Your task to perform on an android device: Open Google Image 0: 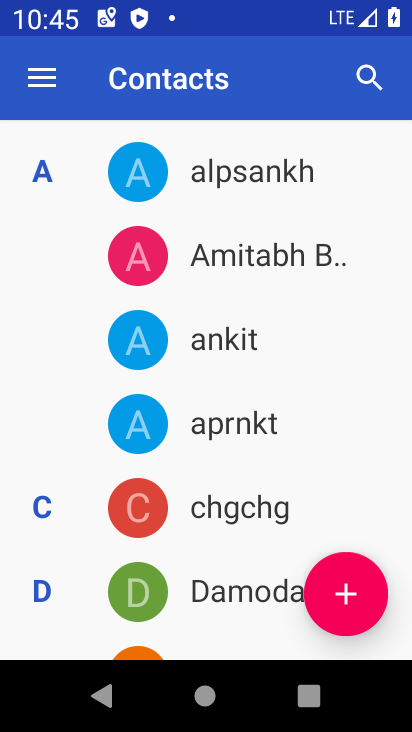
Step 0: press home button
Your task to perform on an android device: Open Google Image 1: 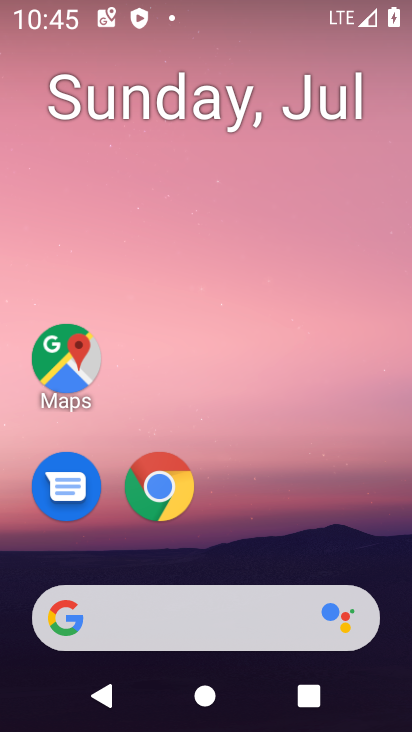
Step 1: drag from (361, 549) to (358, 100)
Your task to perform on an android device: Open Google Image 2: 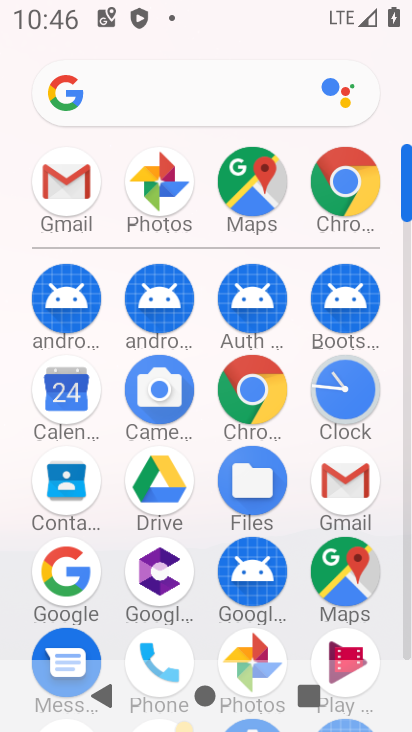
Step 2: click (67, 579)
Your task to perform on an android device: Open Google Image 3: 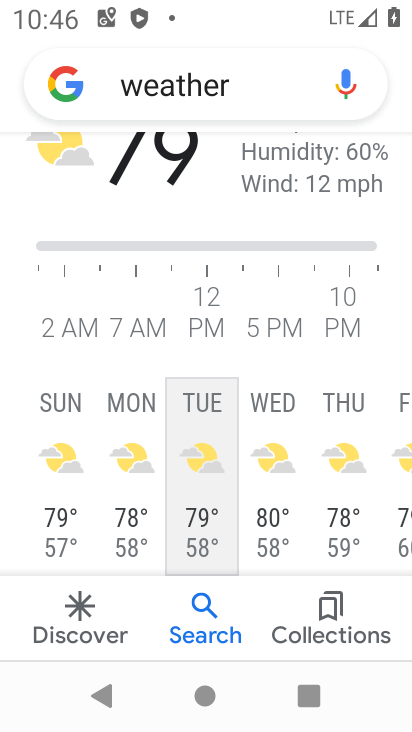
Step 3: task complete